Your task to perform on an android device: read, delete, or share a saved page in the chrome app Image 0: 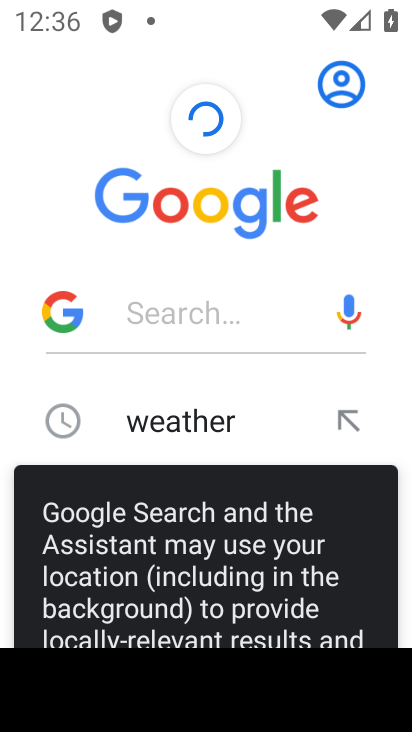
Step 0: press back button
Your task to perform on an android device: read, delete, or share a saved page in the chrome app Image 1: 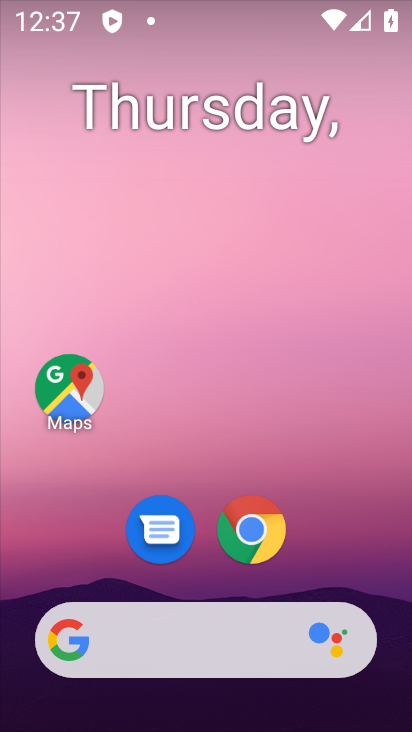
Step 1: click (250, 526)
Your task to perform on an android device: read, delete, or share a saved page in the chrome app Image 2: 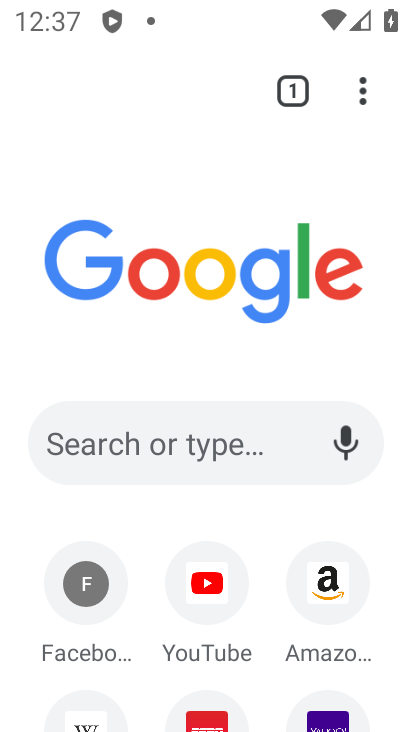
Step 2: click (362, 87)
Your task to perform on an android device: read, delete, or share a saved page in the chrome app Image 3: 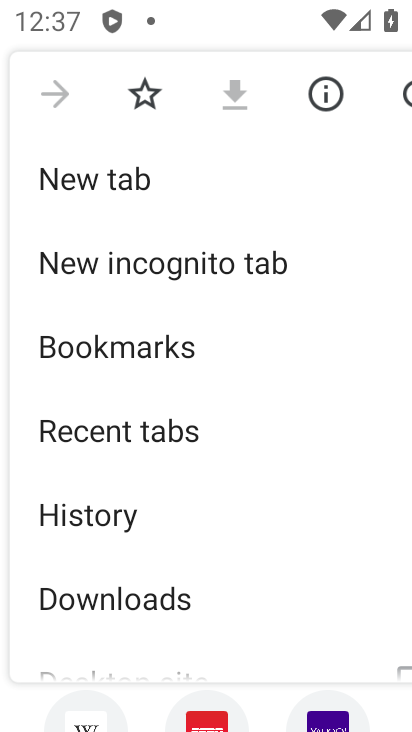
Step 3: click (144, 593)
Your task to perform on an android device: read, delete, or share a saved page in the chrome app Image 4: 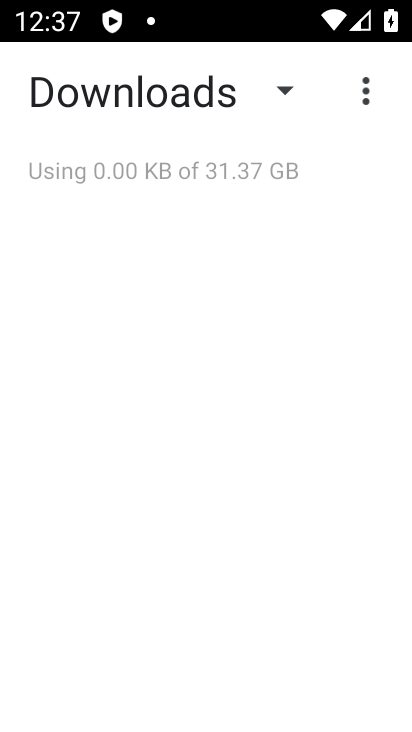
Step 4: task complete